Your task to perform on an android device: turn on notifications settings in the gmail app Image 0: 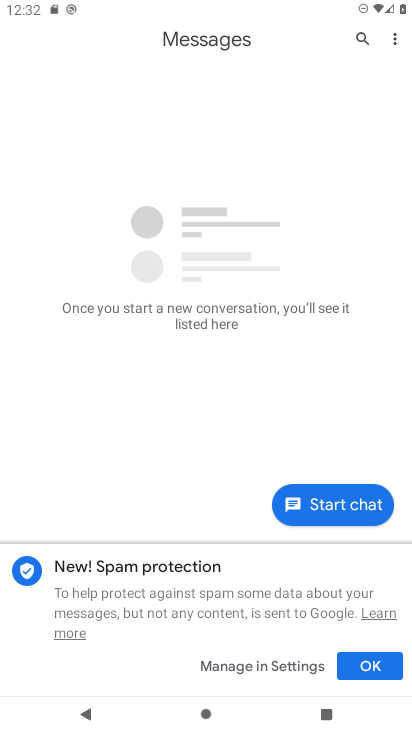
Step 0: press home button
Your task to perform on an android device: turn on notifications settings in the gmail app Image 1: 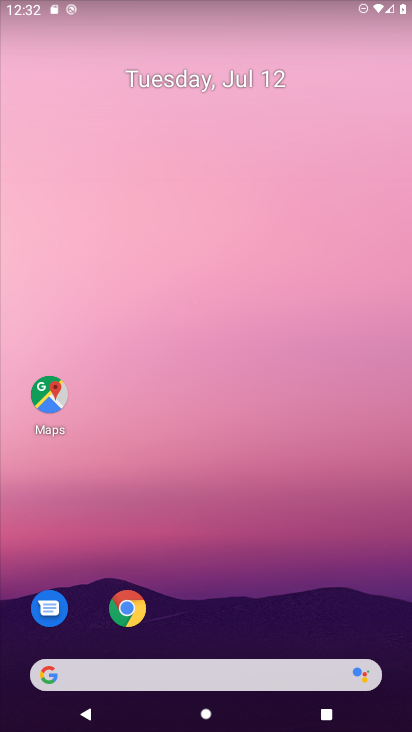
Step 1: drag from (202, 639) to (183, 28)
Your task to perform on an android device: turn on notifications settings in the gmail app Image 2: 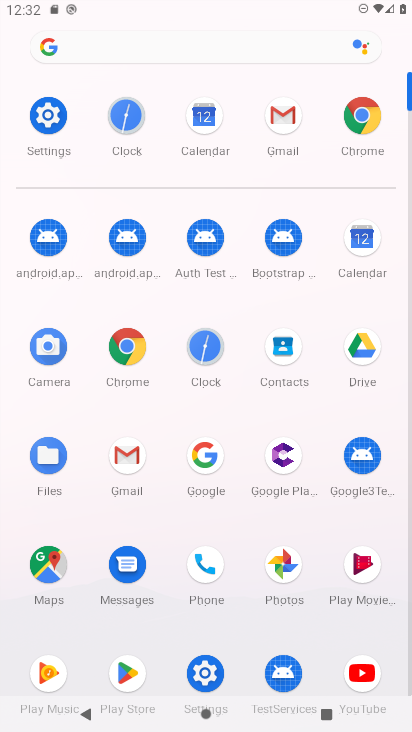
Step 2: click (279, 132)
Your task to perform on an android device: turn on notifications settings in the gmail app Image 3: 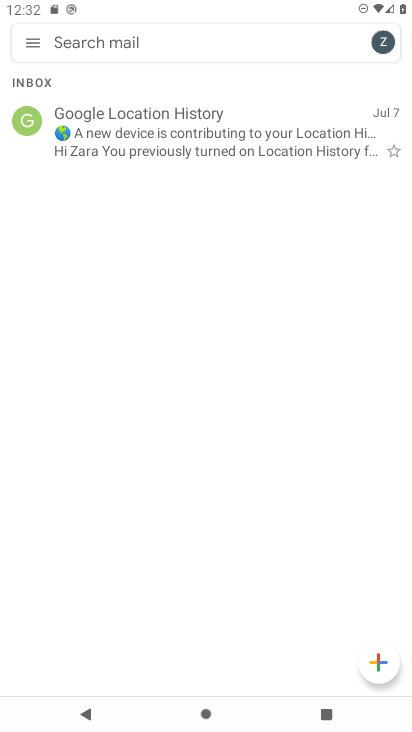
Step 3: click (29, 40)
Your task to perform on an android device: turn on notifications settings in the gmail app Image 4: 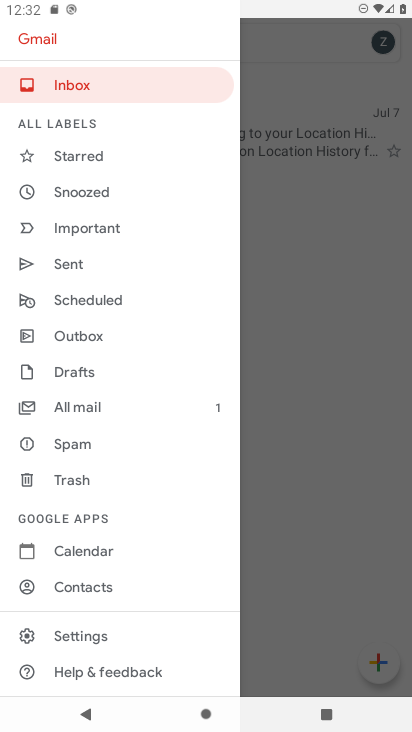
Step 4: click (104, 634)
Your task to perform on an android device: turn on notifications settings in the gmail app Image 5: 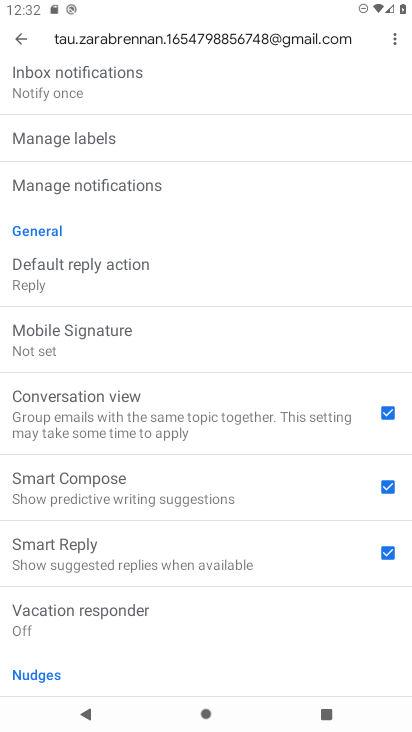
Step 5: click (90, 181)
Your task to perform on an android device: turn on notifications settings in the gmail app Image 6: 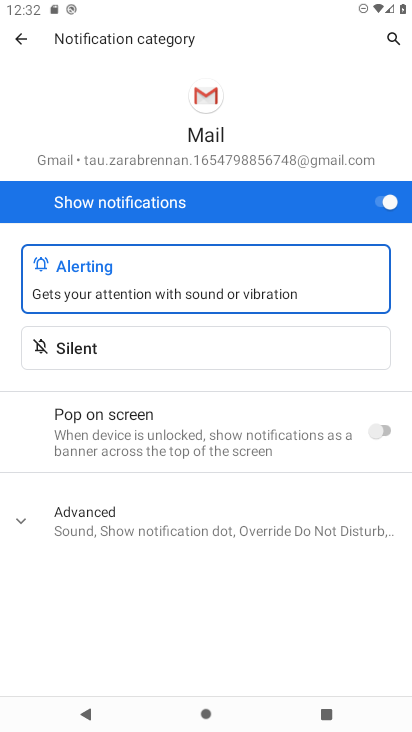
Step 6: click (379, 198)
Your task to perform on an android device: turn on notifications settings in the gmail app Image 7: 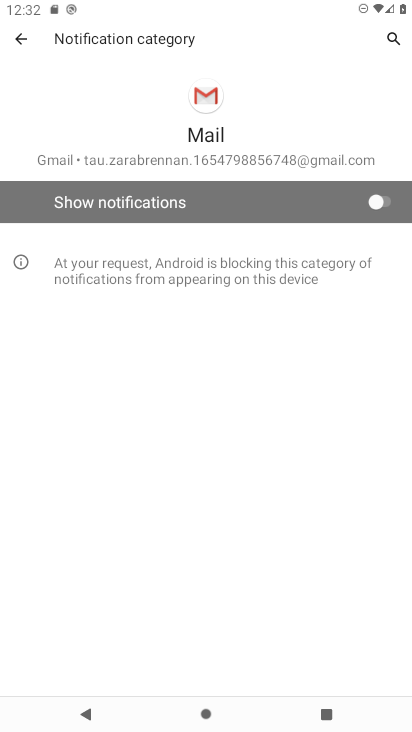
Step 7: task complete